Your task to perform on an android device: change the clock style Image 0: 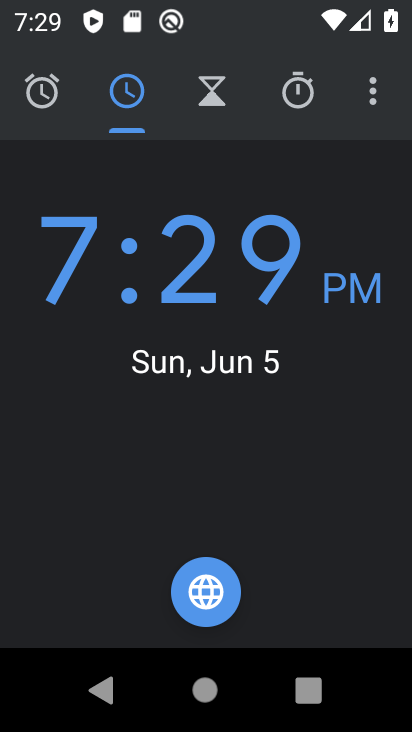
Step 0: click (376, 91)
Your task to perform on an android device: change the clock style Image 1: 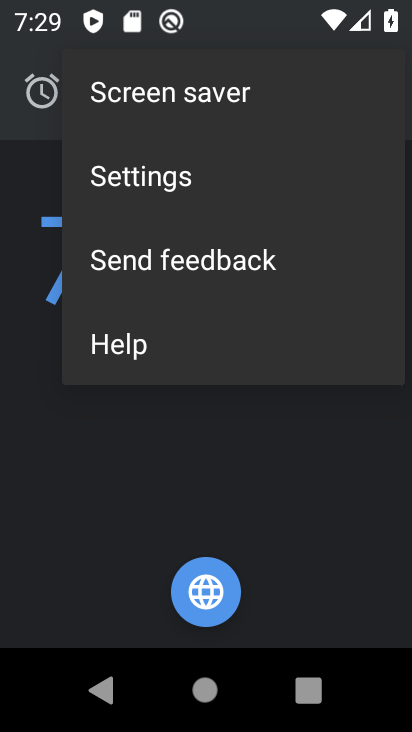
Step 1: click (138, 171)
Your task to perform on an android device: change the clock style Image 2: 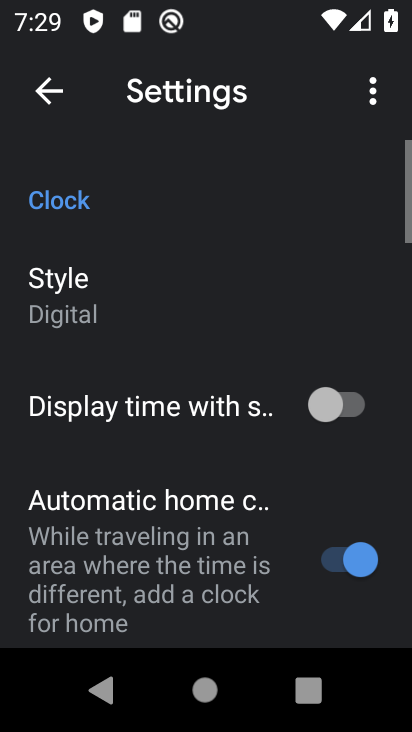
Step 2: click (49, 311)
Your task to perform on an android device: change the clock style Image 3: 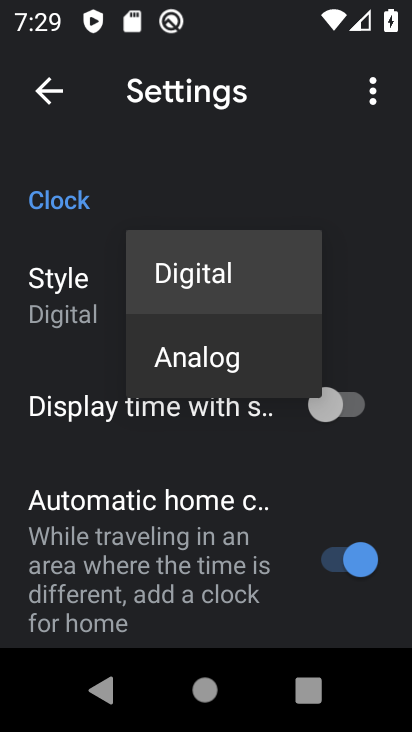
Step 3: click (198, 366)
Your task to perform on an android device: change the clock style Image 4: 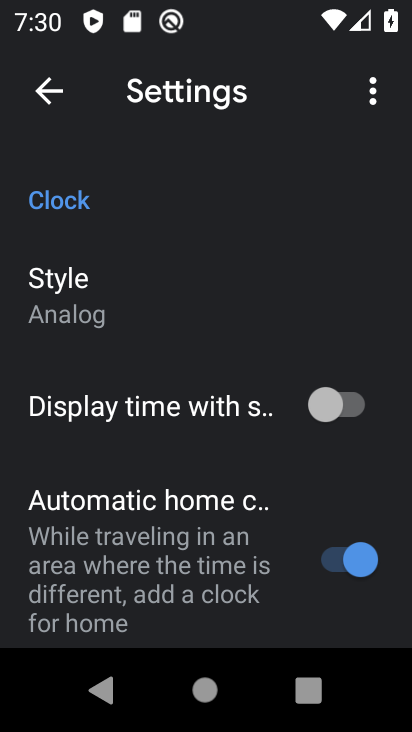
Step 4: task complete